Your task to perform on an android device: allow cookies in the chrome app Image 0: 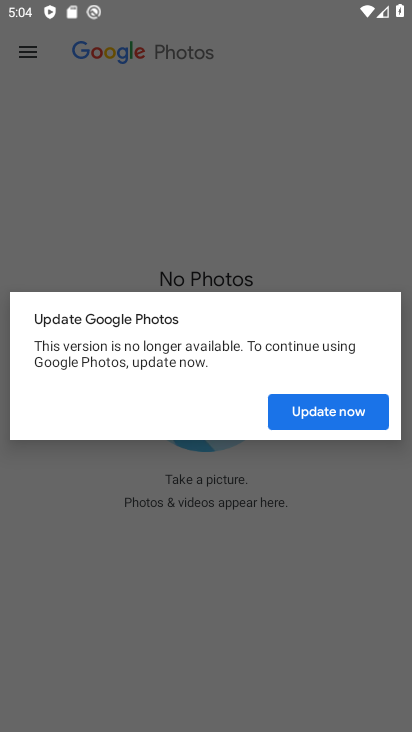
Step 0: press home button
Your task to perform on an android device: allow cookies in the chrome app Image 1: 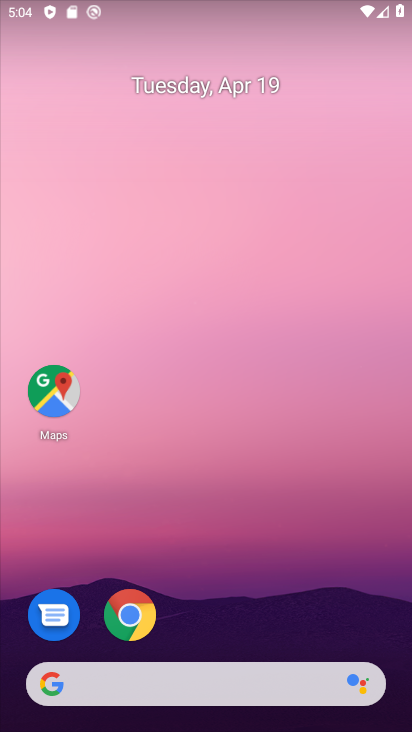
Step 1: click (131, 616)
Your task to perform on an android device: allow cookies in the chrome app Image 2: 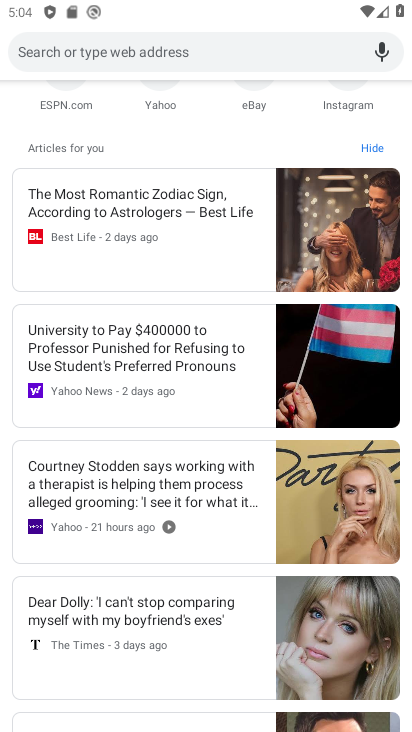
Step 2: drag from (241, 138) to (240, 677)
Your task to perform on an android device: allow cookies in the chrome app Image 3: 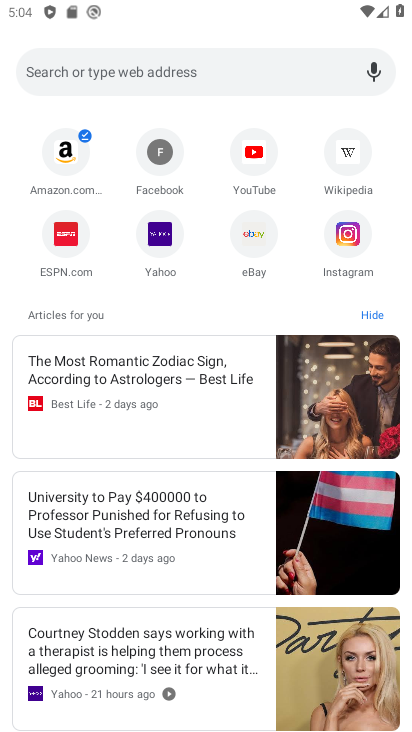
Step 3: drag from (200, 267) to (200, 633)
Your task to perform on an android device: allow cookies in the chrome app Image 4: 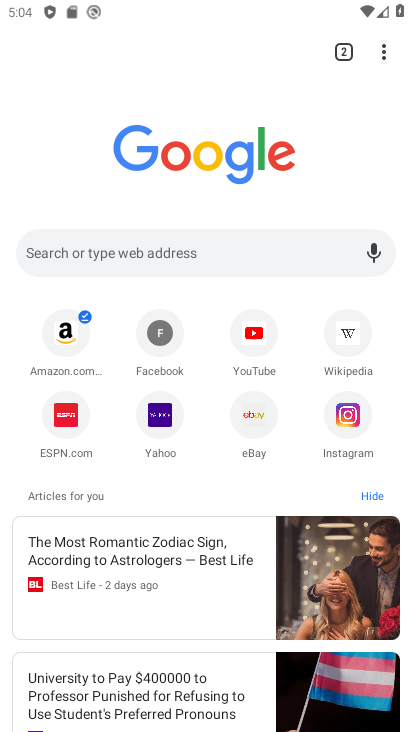
Step 4: click (382, 48)
Your task to perform on an android device: allow cookies in the chrome app Image 5: 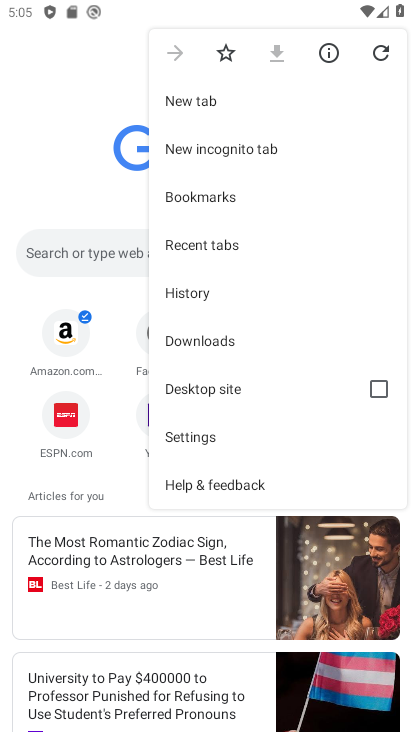
Step 5: click (188, 433)
Your task to perform on an android device: allow cookies in the chrome app Image 6: 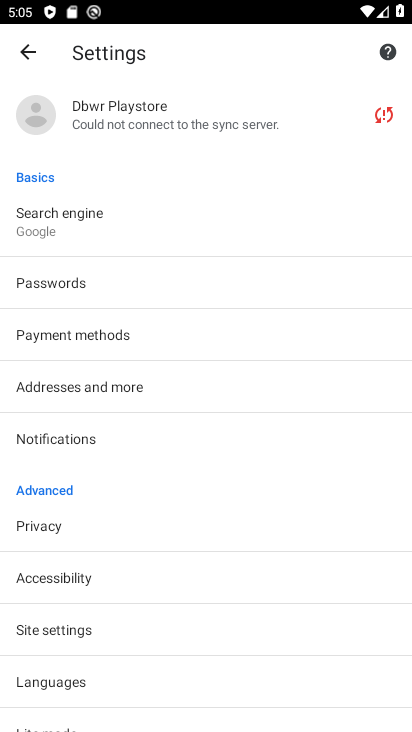
Step 6: click (66, 627)
Your task to perform on an android device: allow cookies in the chrome app Image 7: 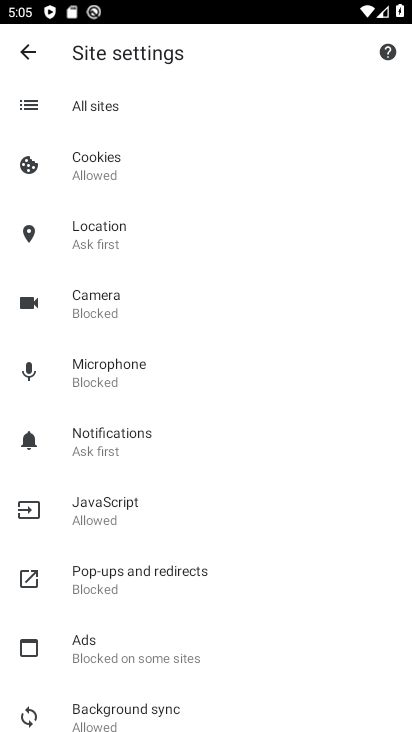
Step 7: click (99, 163)
Your task to perform on an android device: allow cookies in the chrome app Image 8: 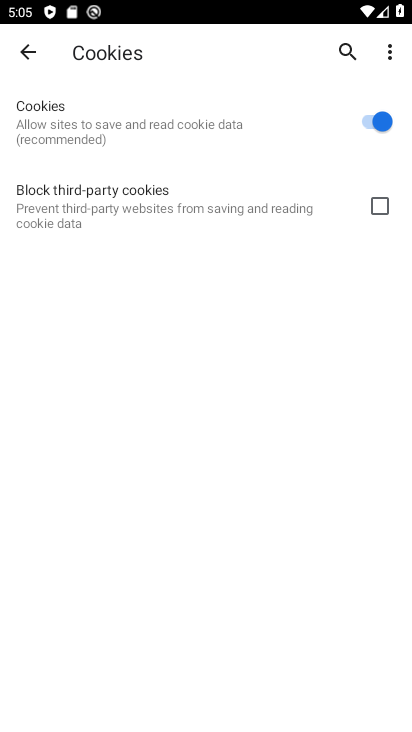
Step 8: task complete